Your task to perform on an android device: Turn on the flashlight Image 0: 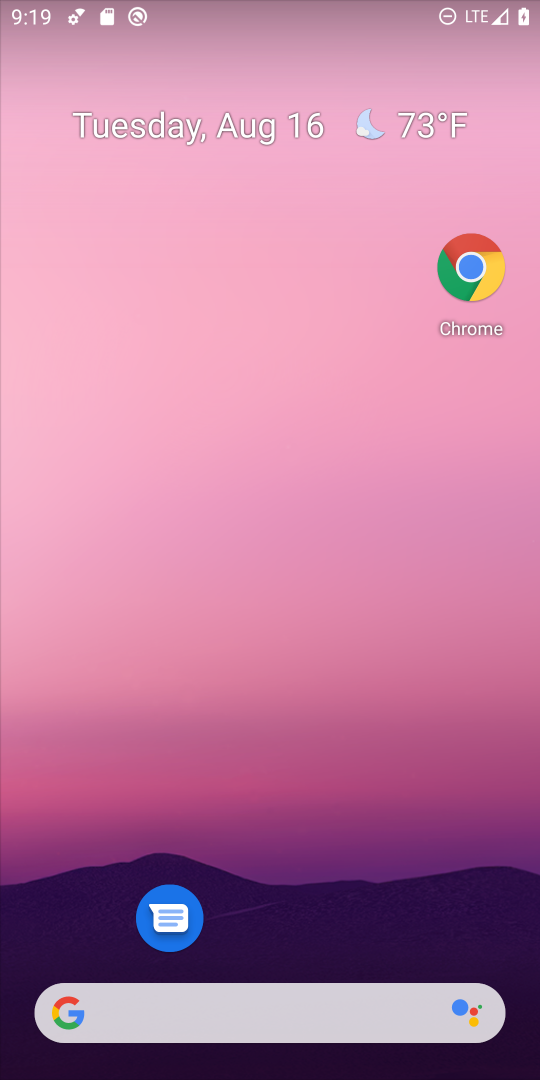
Step 0: drag from (275, 1019) to (225, 226)
Your task to perform on an android device: Turn on the flashlight Image 1: 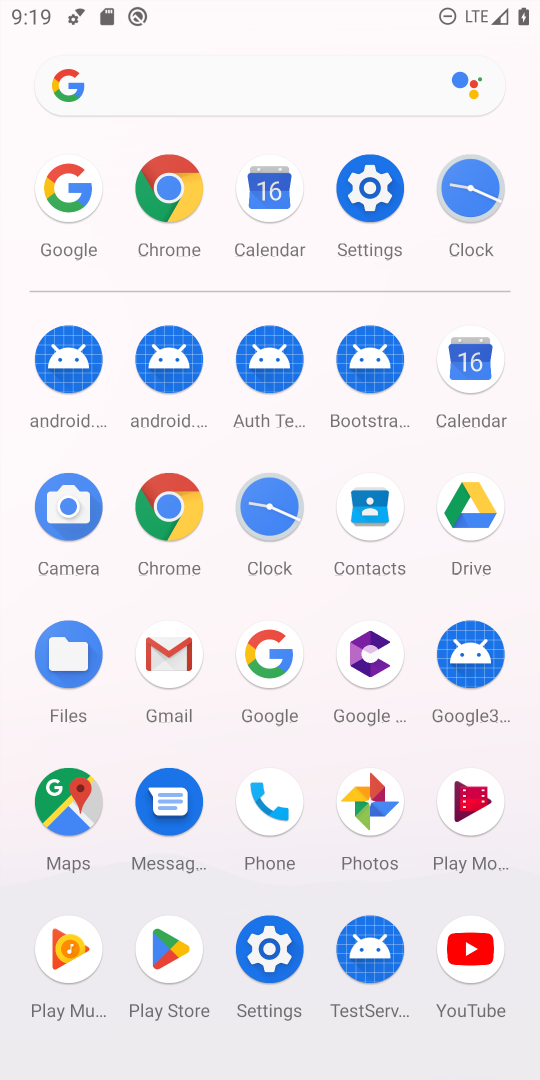
Step 1: task complete